Your task to perform on an android device: toggle notifications settings in the gmail app Image 0: 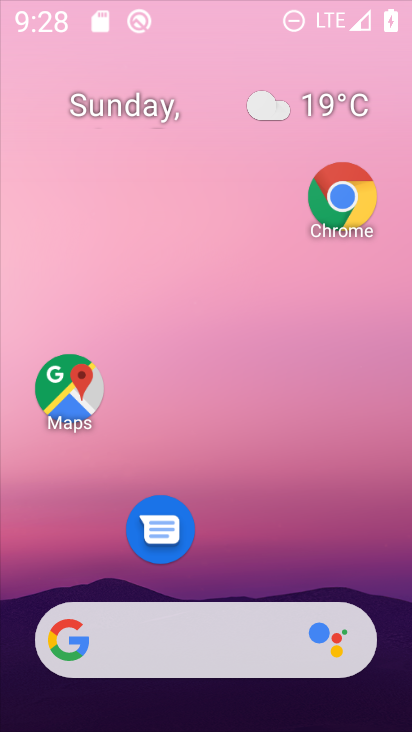
Step 0: press home button
Your task to perform on an android device: toggle notifications settings in the gmail app Image 1: 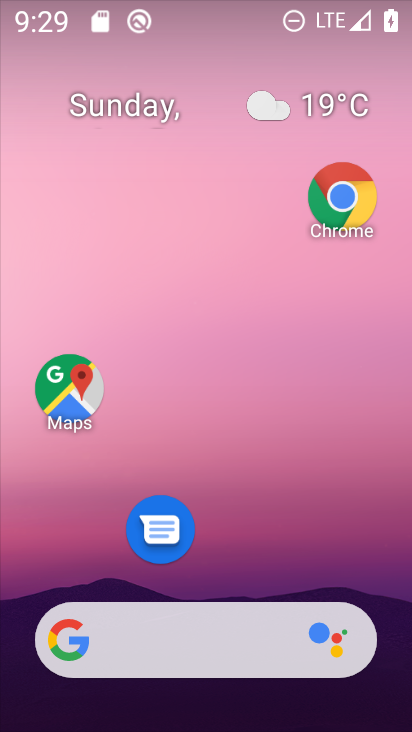
Step 1: drag from (222, 581) to (251, 63)
Your task to perform on an android device: toggle notifications settings in the gmail app Image 2: 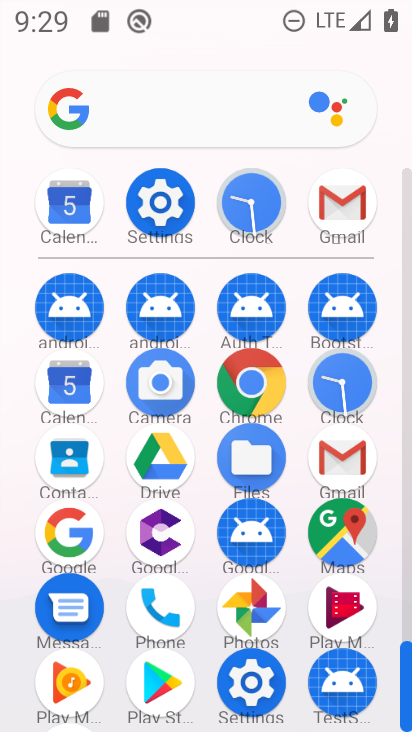
Step 2: click (341, 193)
Your task to perform on an android device: toggle notifications settings in the gmail app Image 3: 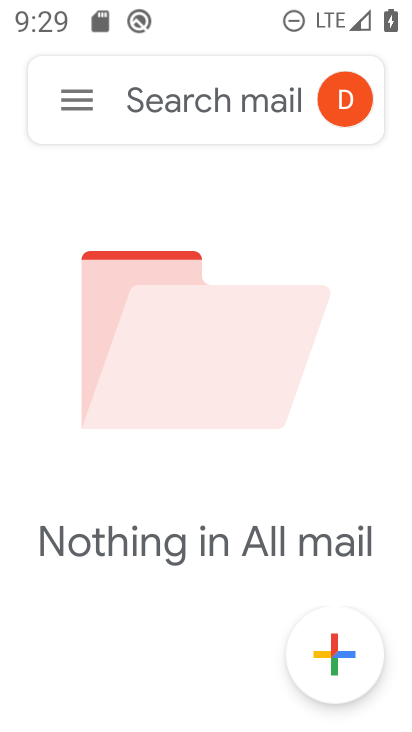
Step 3: click (78, 96)
Your task to perform on an android device: toggle notifications settings in the gmail app Image 4: 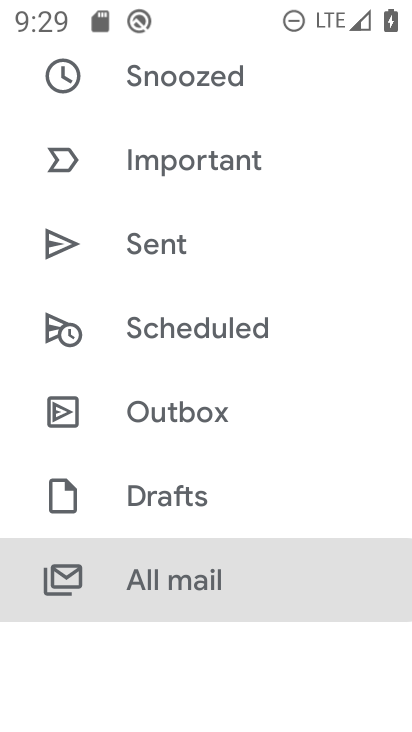
Step 4: drag from (223, 552) to (261, 151)
Your task to perform on an android device: toggle notifications settings in the gmail app Image 5: 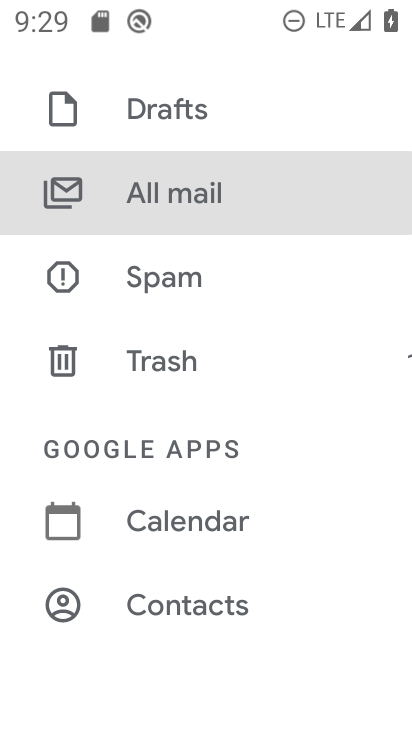
Step 5: drag from (210, 591) to (239, 81)
Your task to perform on an android device: toggle notifications settings in the gmail app Image 6: 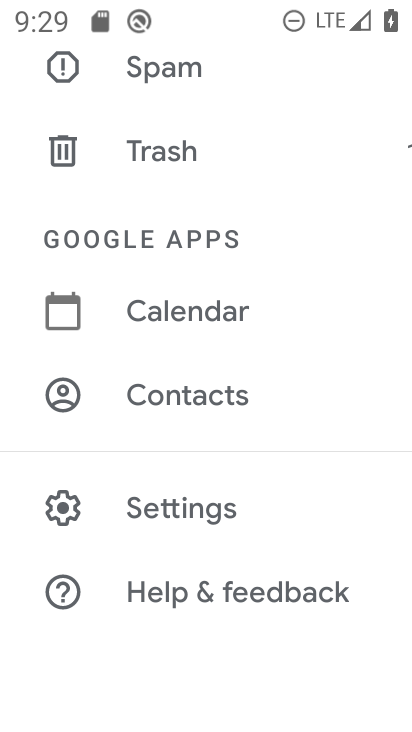
Step 6: click (252, 498)
Your task to perform on an android device: toggle notifications settings in the gmail app Image 7: 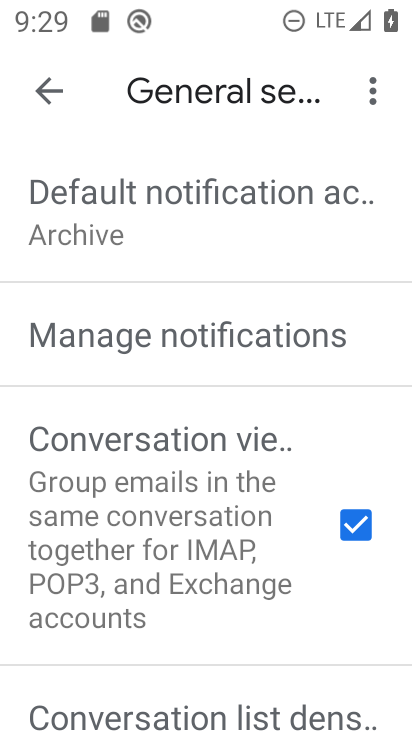
Step 7: click (235, 353)
Your task to perform on an android device: toggle notifications settings in the gmail app Image 8: 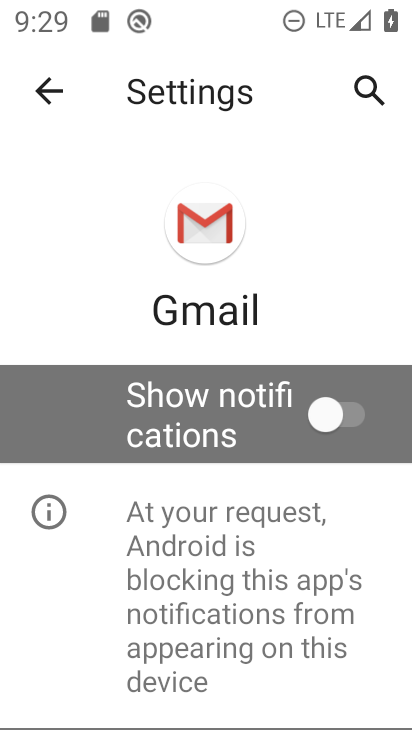
Step 8: click (343, 408)
Your task to perform on an android device: toggle notifications settings in the gmail app Image 9: 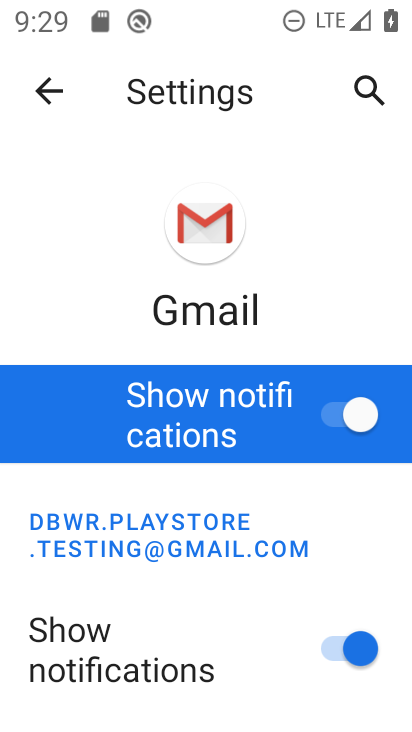
Step 9: click (340, 408)
Your task to perform on an android device: toggle notifications settings in the gmail app Image 10: 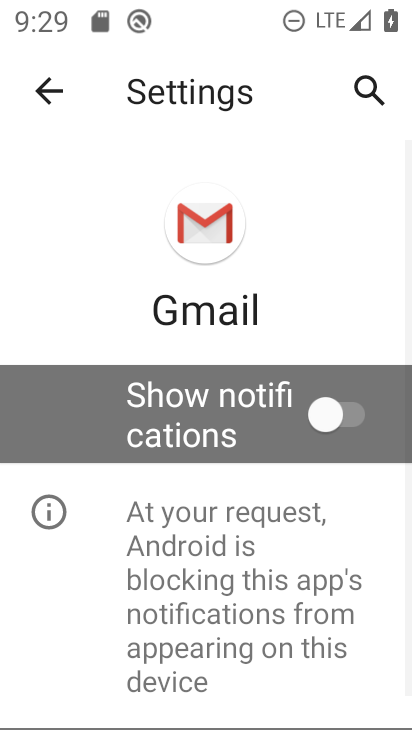
Step 10: task complete